Your task to perform on an android device: Open Maps and search for coffee Image 0: 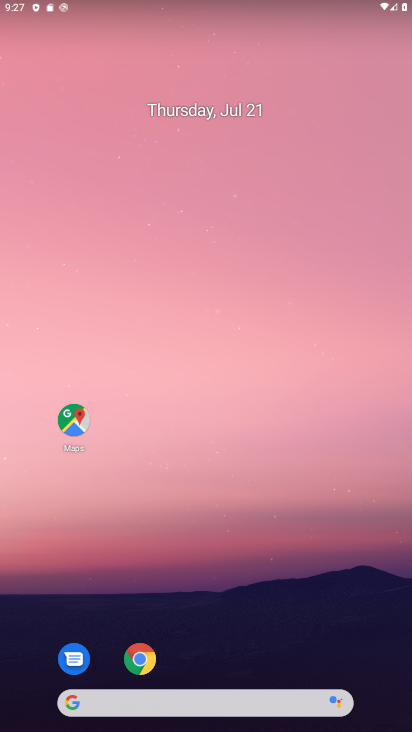
Step 0: click (82, 432)
Your task to perform on an android device: Open Maps and search for coffee Image 1: 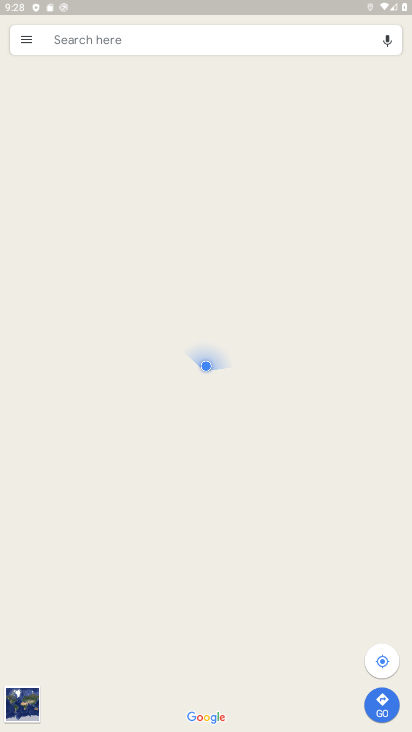
Step 1: click (255, 40)
Your task to perform on an android device: Open Maps and search for coffee Image 2: 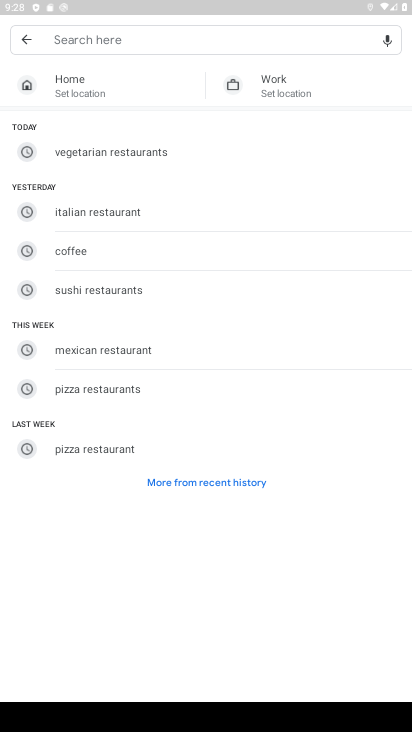
Step 2: type "coffee"
Your task to perform on an android device: Open Maps and search for coffee Image 3: 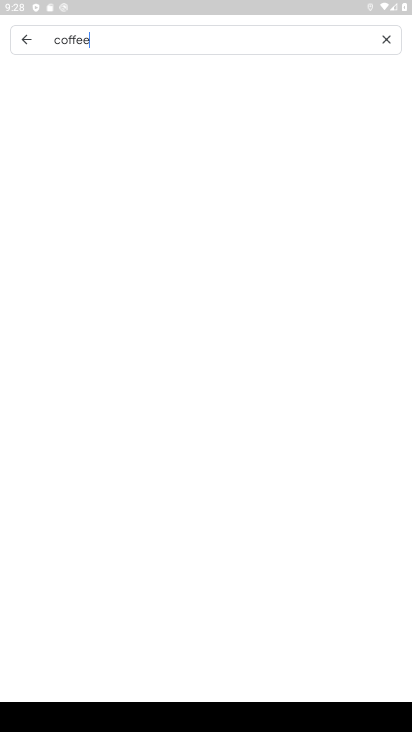
Step 3: type ""
Your task to perform on an android device: Open Maps and search for coffee Image 4: 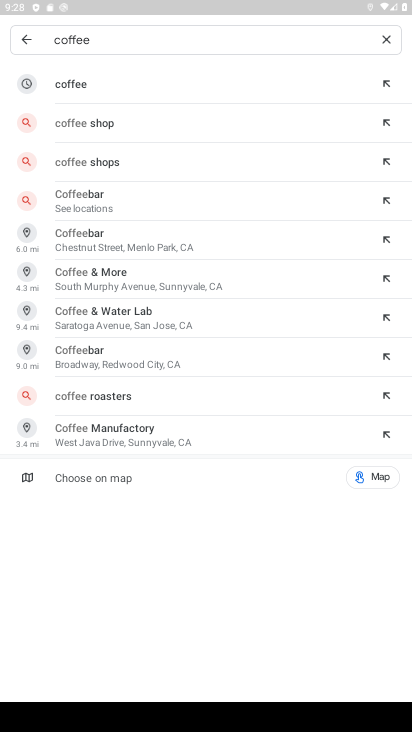
Step 4: click (61, 88)
Your task to perform on an android device: Open Maps and search for coffee Image 5: 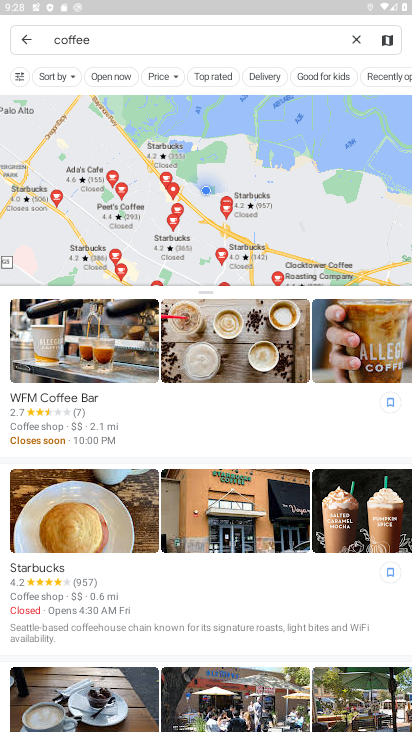
Step 5: task complete